Your task to perform on an android device: choose inbox layout in the gmail app Image 0: 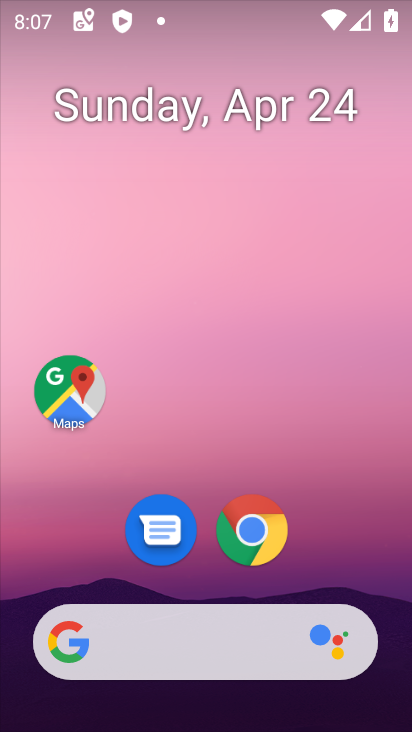
Step 0: drag from (213, 585) to (215, 3)
Your task to perform on an android device: choose inbox layout in the gmail app Image 1: 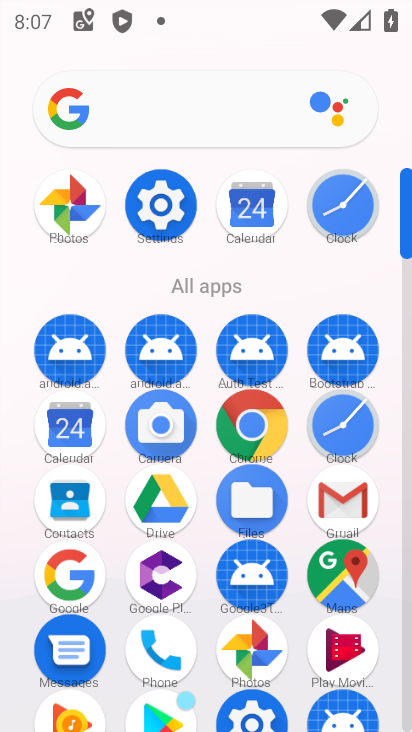
Step 1: click (329, 503)
Your task to perform on an android device: choose inbox layout in the gmail app Image 2: 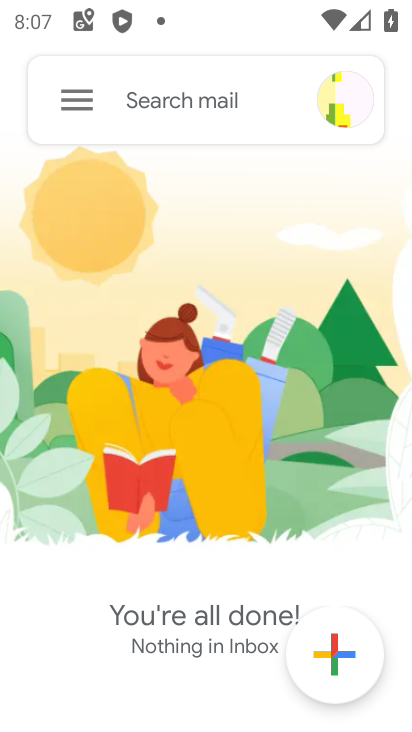
Step 2: click (76, 89)
Your task to perform on an android device: choose inbox layout in the gmail app Image 3: 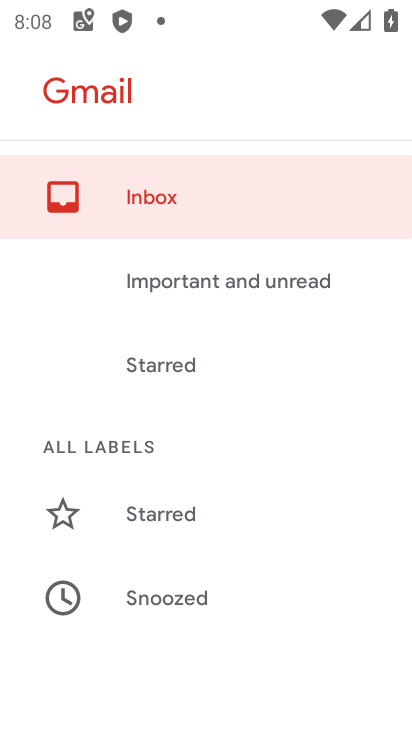
Step 3: drag from (160, 484) to (376, 25)
Your task to perform on an android device: choose inbox layout in the gmail app Image 4: 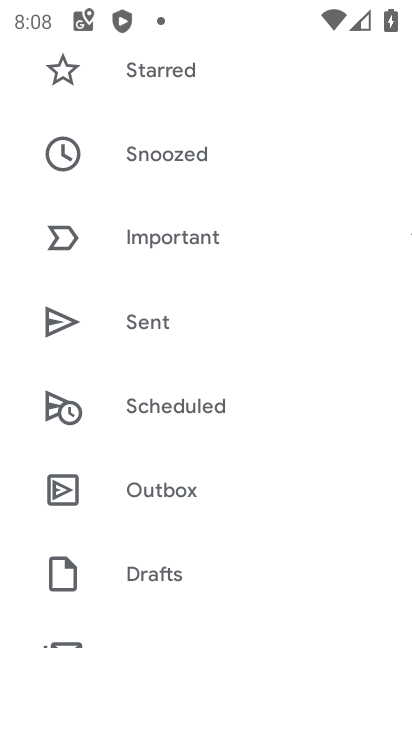
Step 4: drag from (161, 646) to (209, 196)
Your task to perform on an android device: choose inbox layout in the gmail app Image 5: 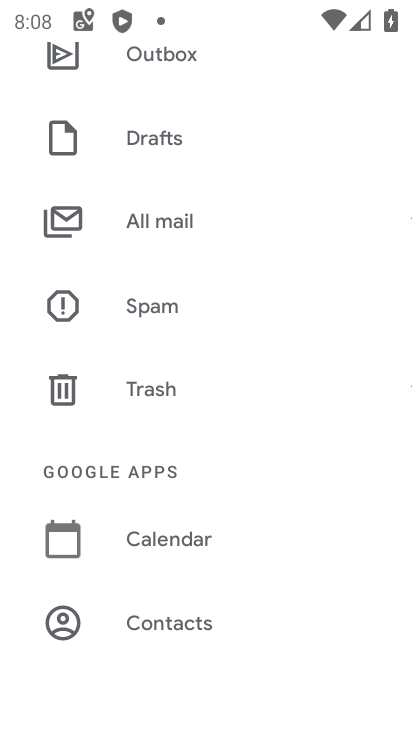
Step 5: drag from (183, 587) to (224, 26)
Your task to perform on an android device: choose inbox layout in the gmail app Image 6: 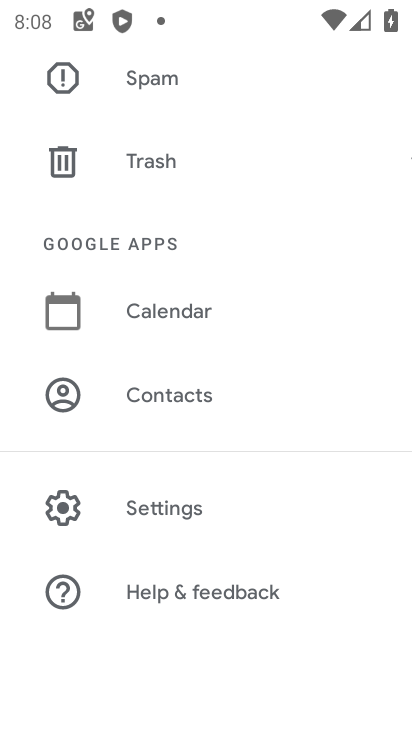
Step 6: click (175, 514)
Your task to perform on an android device: choose inbox layout in the gmail app Image 7: 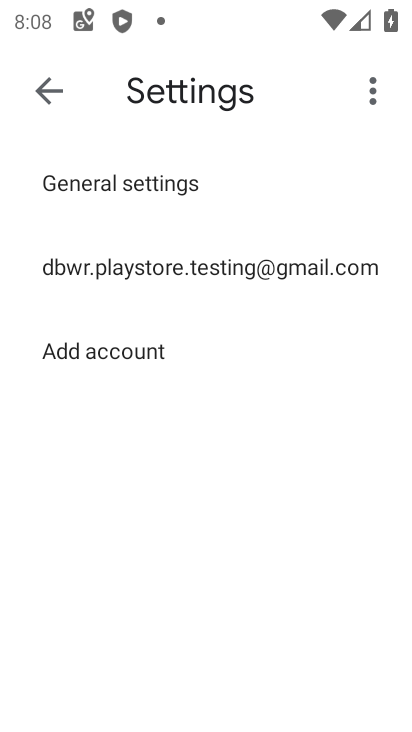
Step 7: click (160, 268)
Your task to perform on an android device: choose inbox layout in the gmail app Image 8: 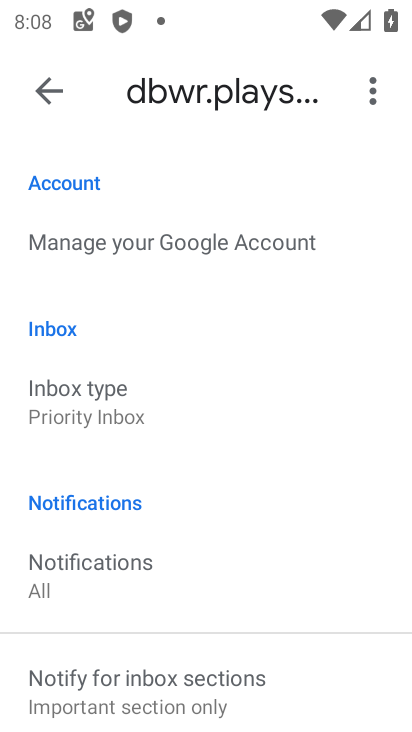
Step 8: click (157, 404)
Your task to perform on an android device: choose inbox layout in the gmail app Image 9: 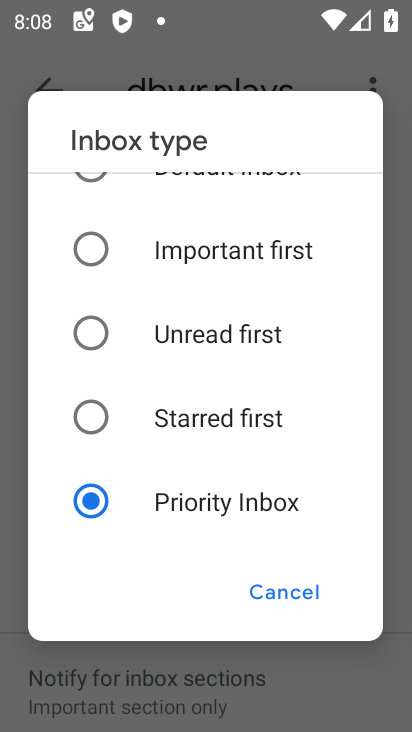
Step 9: click (218, 431)
Your task to perform on an android device: choose inbox layout in the gmail app Image 10: 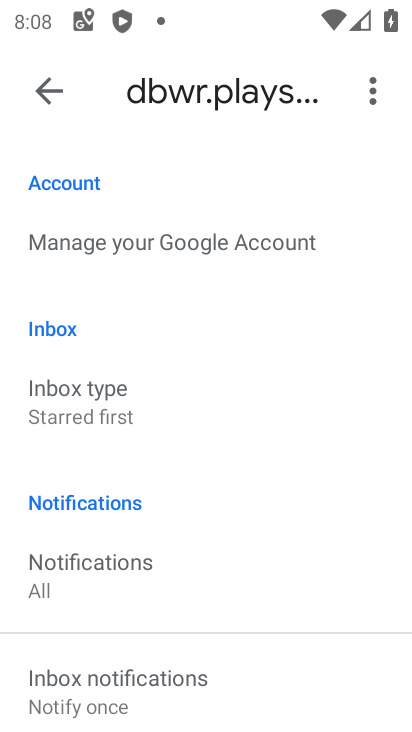
Step 10: task complete